Your task to perform on an android device: Go to network settings Image 0: 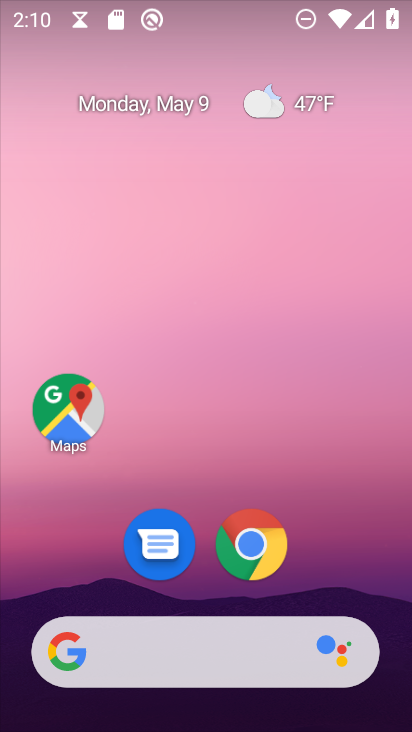
Step 0: drag from (374, 550) to (8, 499)
Your task to perform on an android device: Go to network settings Image 1: 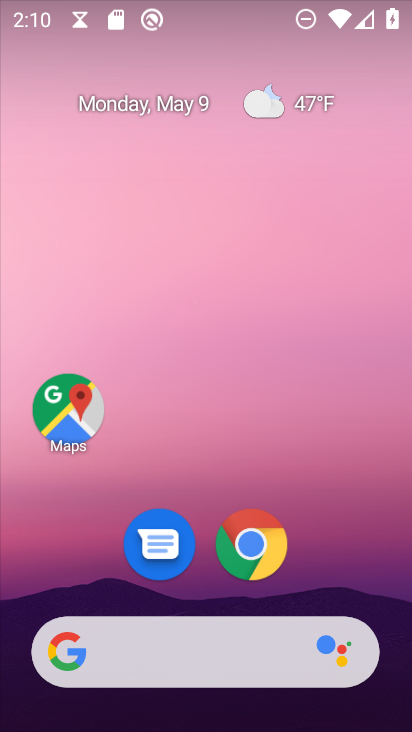
Step 1: drag from (355, 540) to (411, 206)
Your task to perform on an android device: Go to network settings Image 2: 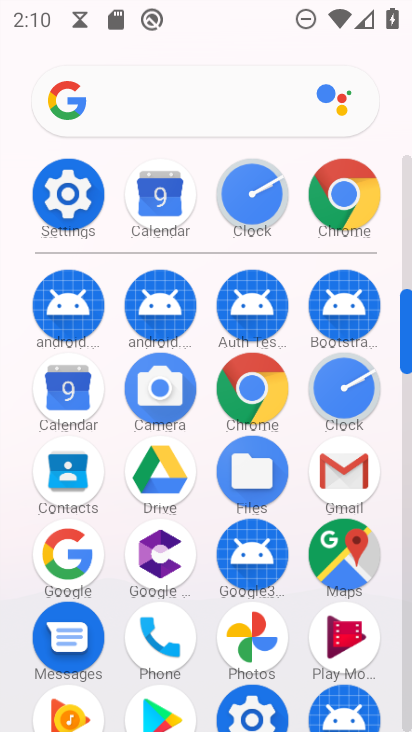
Step 2: click (51, 192)
Your task to perform on an android device: Go to network settings Image 3: 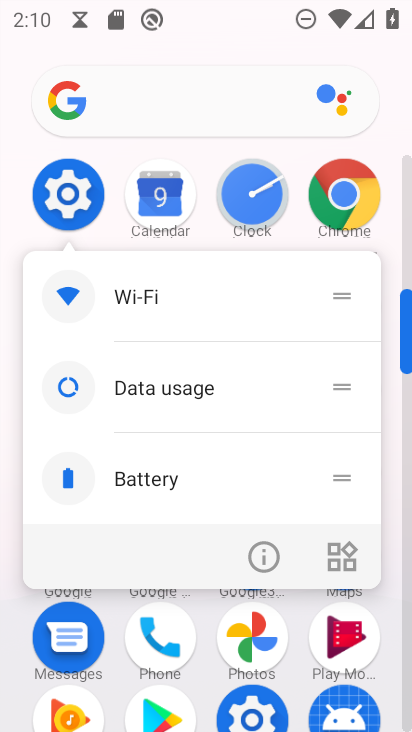
Step 3: click (51, 192)
Your task to perform on an android device: Go to network settings Image 4: 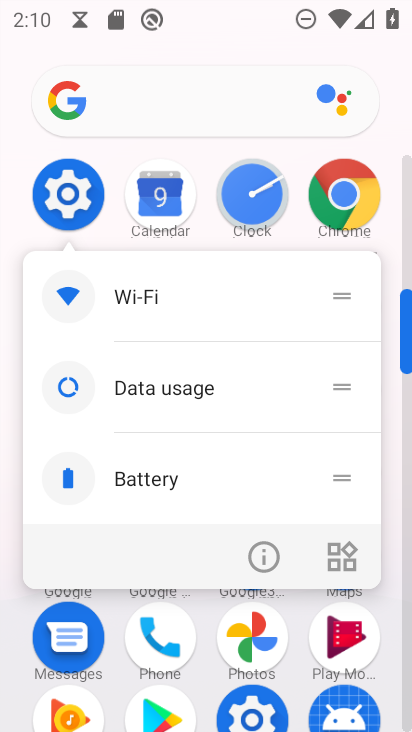
Step 4: click (51, 192)
Your task to perform on an android device: Go to network settings Image 5: 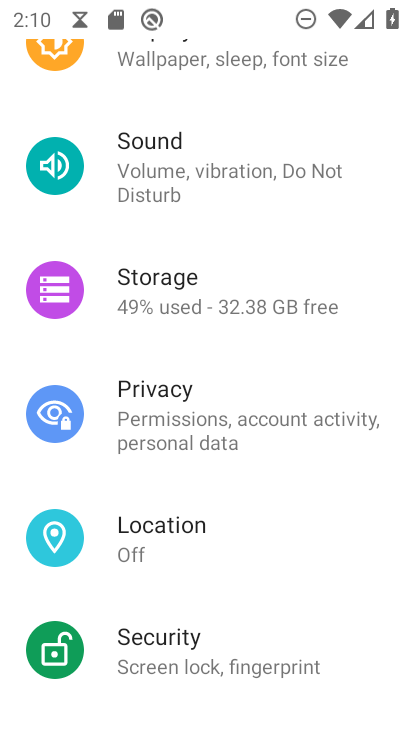
Step 5: drag from (192, 163) to (126, 566)
Your task to perform on an android device: Go to network settings Image 6: 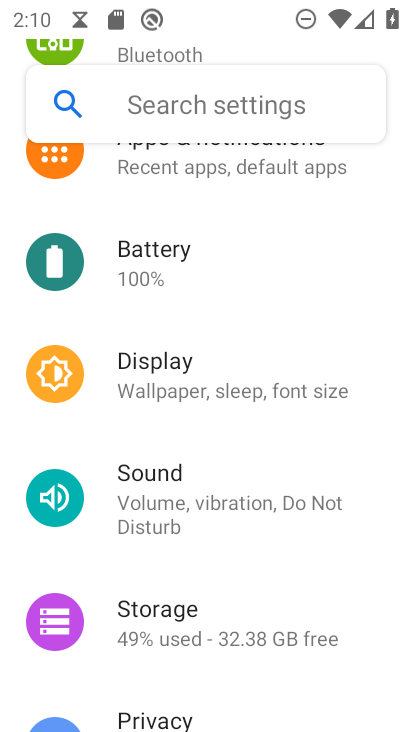
Step 6: drag from (251, 285) to (229, 537)
Your task to perform on an android device: Go to network settings Image 7: 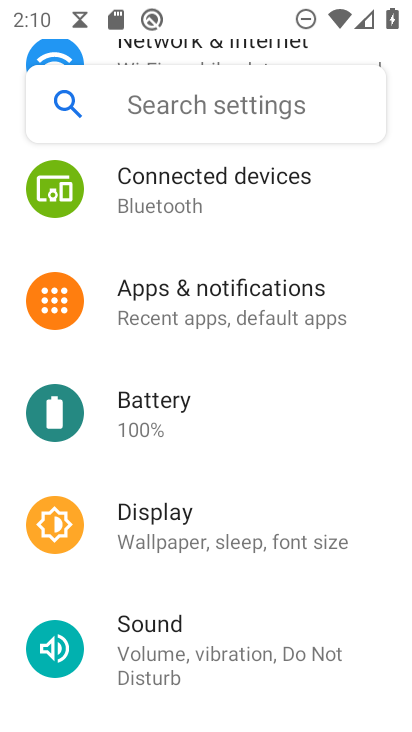
Step 7: drag from (160, 222) to (161, 609)
Your task to perform on an android device: Go to network settings Image 8: 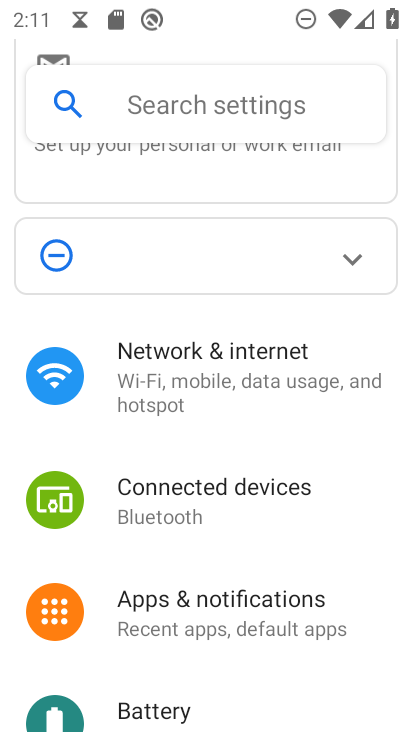
Step 8: click (185, 347)
Your task to perform on an android device: Go to network settings Image 9: 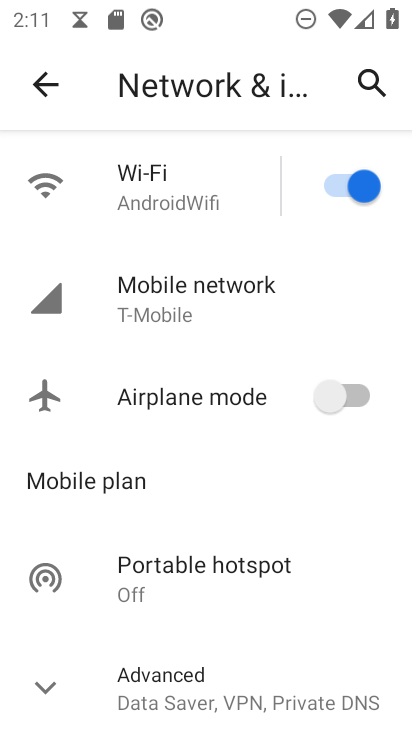
Step 9: click (160, 305)
Your task to perform on an android device: Go to network settings Image 10: 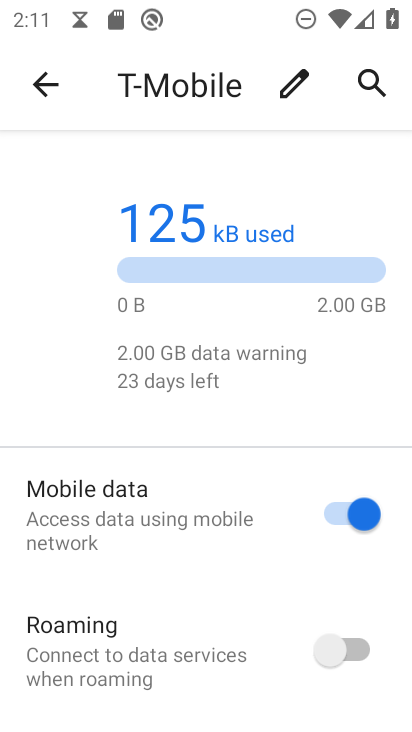
Step 10: task complete